Your task to perform on an android device: turn pop-ups on in chrome Image 0: 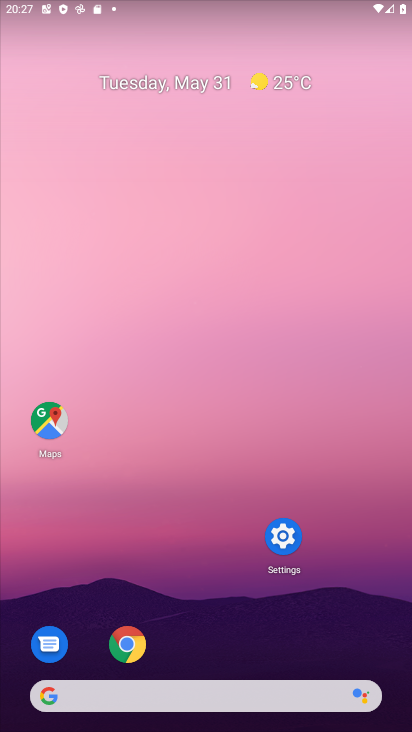
Step 0: drag from (226, 717) to (326, 188)
Your task to perform on an android device: turn pop-ups on in chrome Image 1: 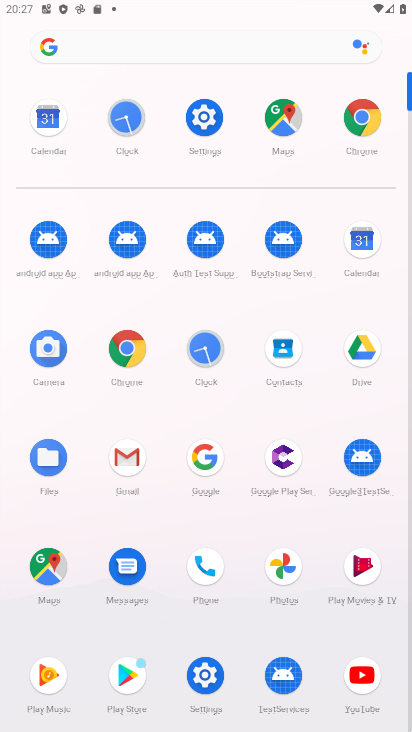
Step 1: click (123, 366)
Your task to perform on an android device: turn pop-ups on in chrome Image 2: 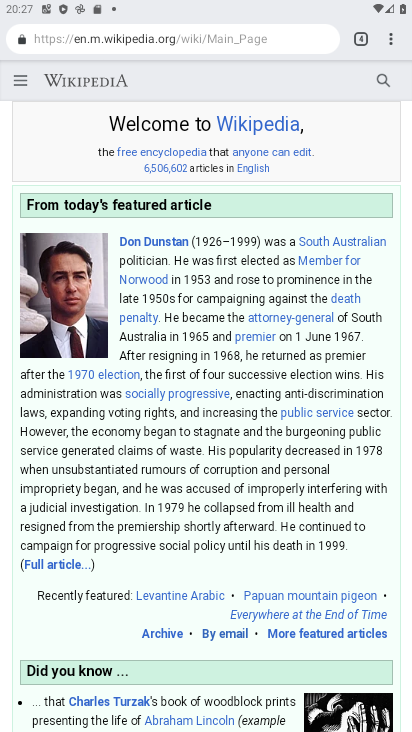
Step 2: click (390, 46)
Your task to perform on an android device: turn pop-ups on in chrome Image 3: 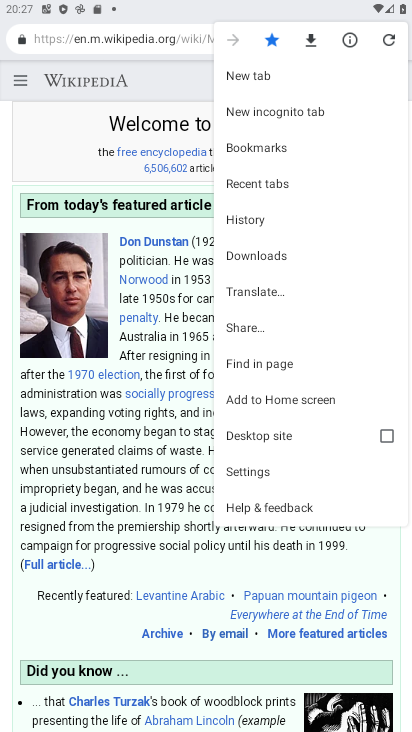
Step 3: click (258, 479)
Your task to perform on an android device: turn pop-ups on in chrome Image 4: 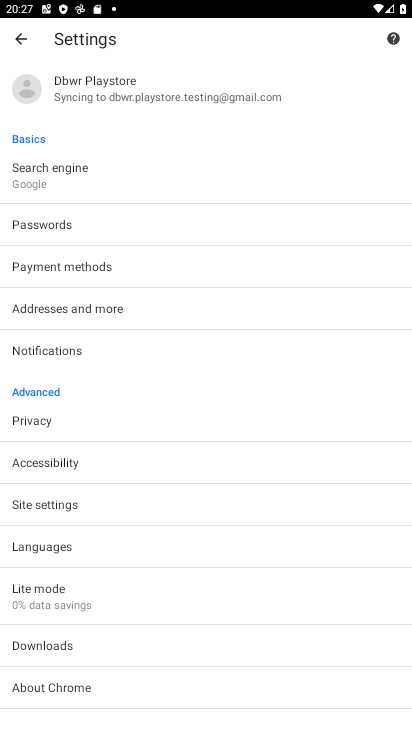
Step 4: click (111, 497)
Your task to perform on an android device: turn pop-ups on in chrome Image 5: 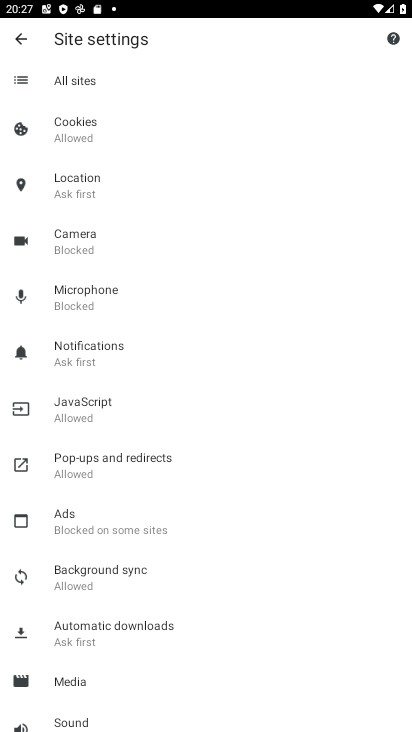
Step 5: click (119, 461)
Your task to perform on an android device: turn pop-ups on in chrome Image 6: 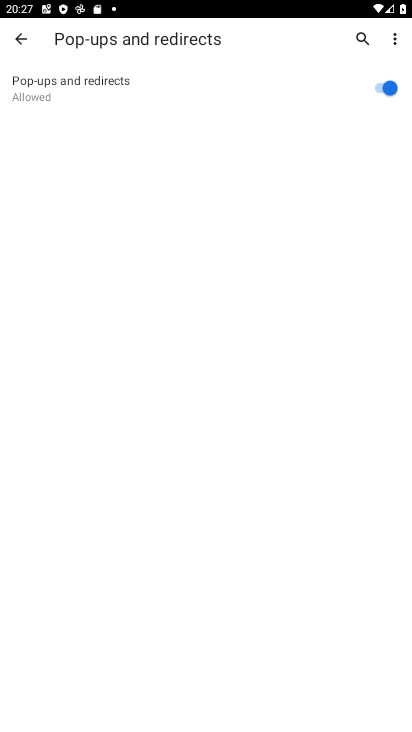
Step 6: click (379, 81)
Your task to perform on an android device: turn pop-ups on in chrome Image 7: 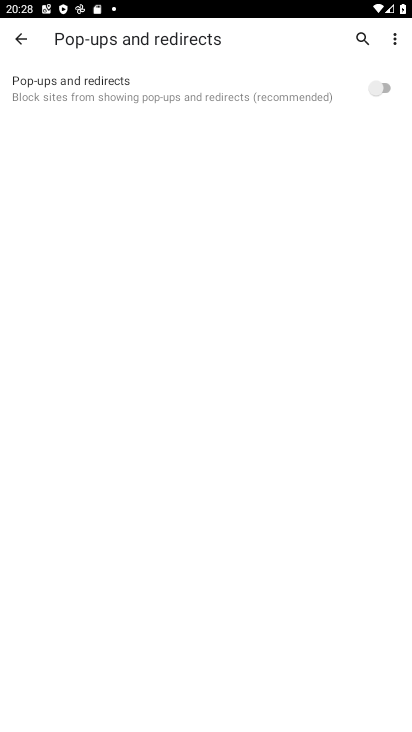
Step 7: click (379, 81)
Your task to perform on an android device: turn pop-ups on in chrome Image 8: 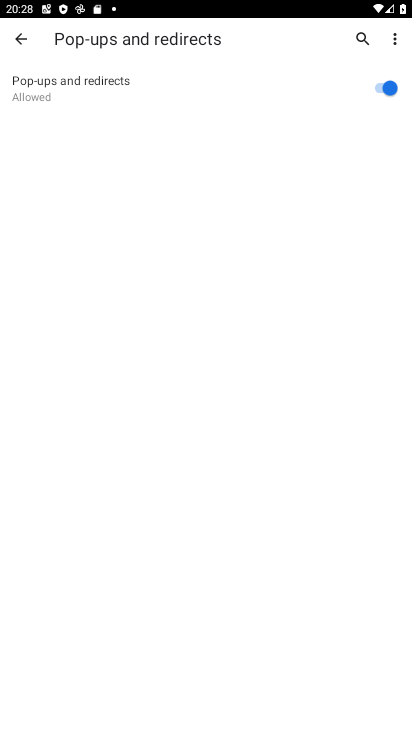
Step 8: task complete